Your task to perform on an android device: What's the weather going to be tomorrow? Image 0: 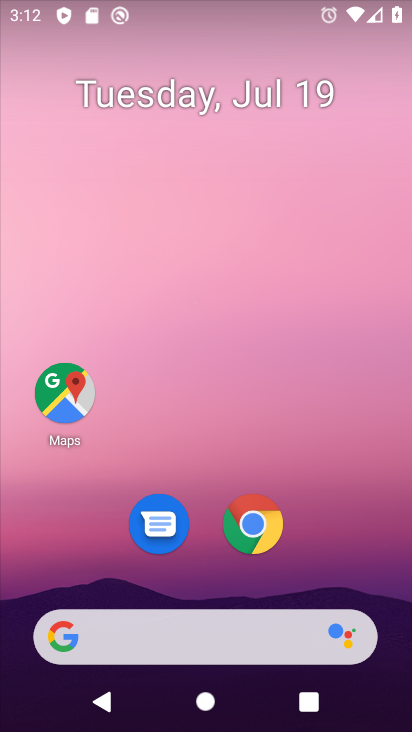
Step 0: click (240, 641)
Your task to perform on an android device: What's the weather going to be tomorrow? Image 1: 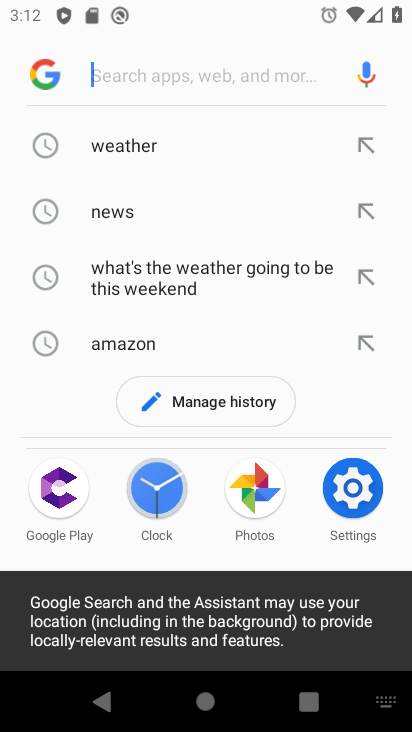
Step 1: click (152, 147)
Your task to perform on an android device: What's the weather going to be tomorrow? Image 2: 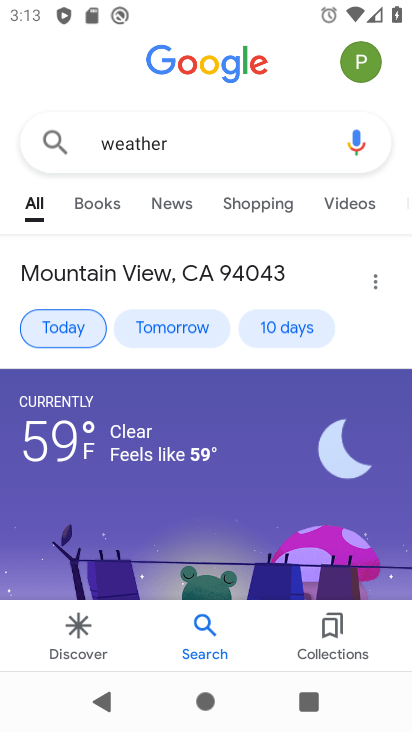
Step 2: click (68, 331)
Your task to perform on an android device: What's the weather going to be tomorrow? Image 3: 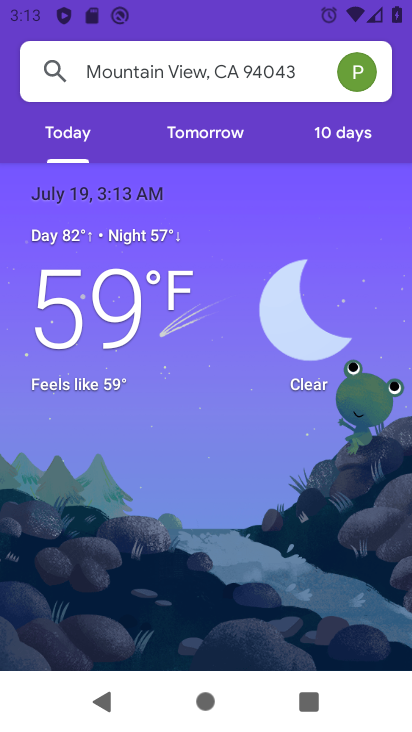
Step 3: click (213, 142)
Your task to perform on an android device: What's the weather going to be tomorrow? Image 4: 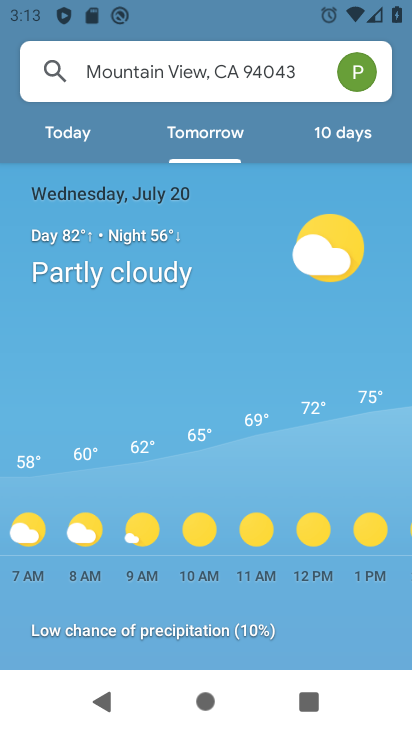
Step 4: task complete